Your task to perform on an android device: turn pop-ups off in chrome Image 0: 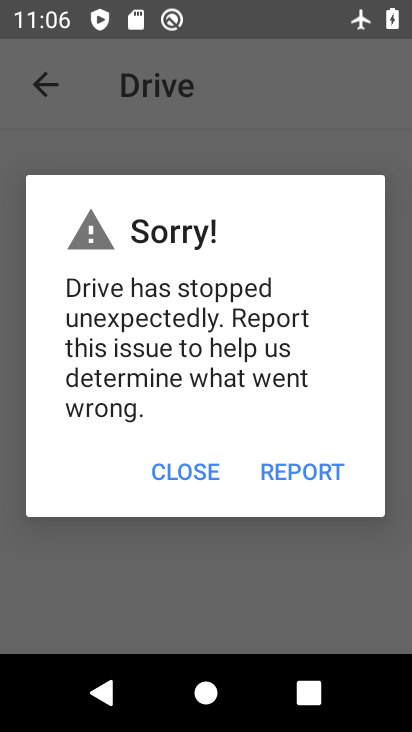
Step 0: press home button
Your task to perform on an android device: turn pop-ups off in chrome Image 1: 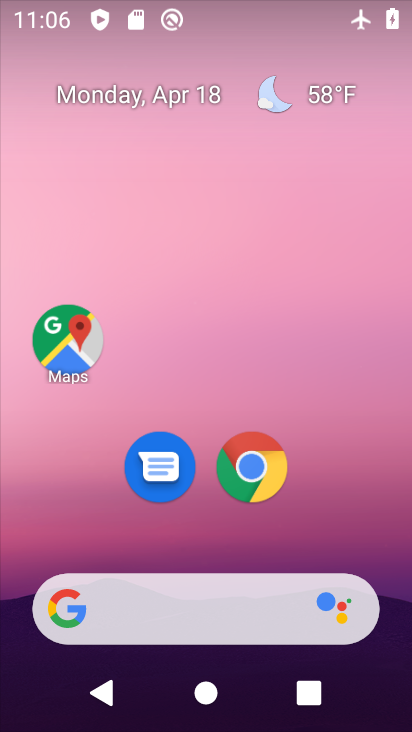
Step 1: click (260, 456)
Your task to perform on an android device: turn pop-ups off in chrome Image 2: 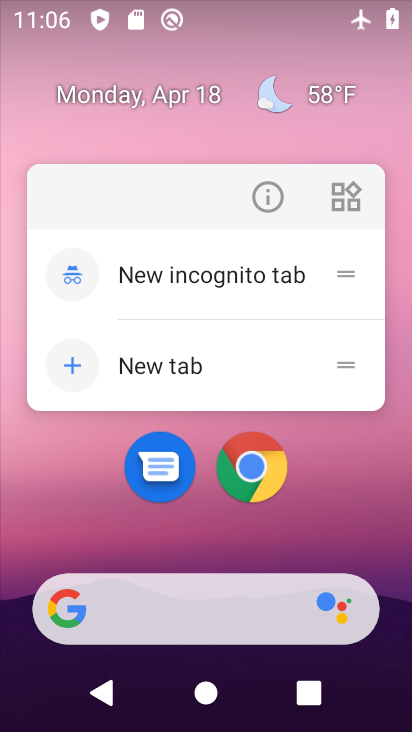
Step 2: click (262, 465)
Your task to perform on an android device: turn pop-ups off in chrome Image 3: 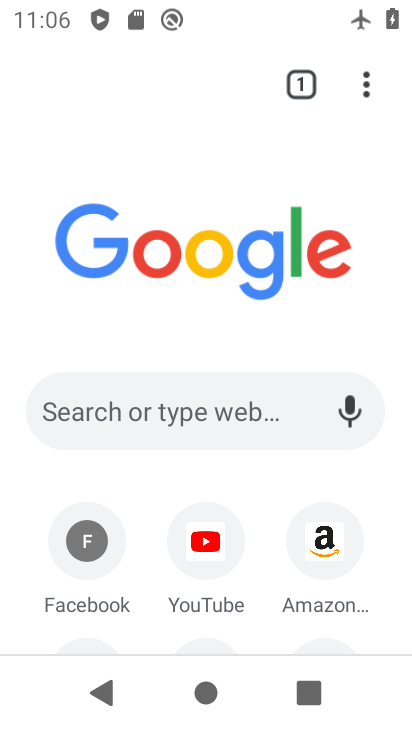
Step 3: click (360, 81)
Your task to perform on an android device: turn pop-ups off in chrome Image 4: 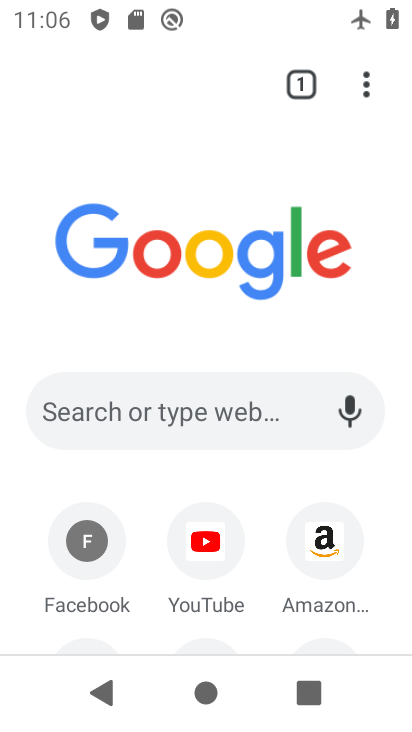
Step 4: click (357, 85)
Your task to perform on an android device: turn pop-ups off in chrome Image 5: 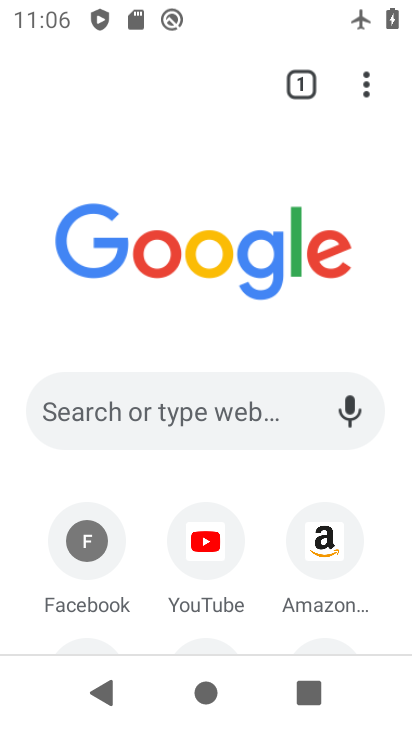
Step 5: click (357, 85)
Your task to perform on an android device: turn pop-ups off in chrome Image 6: 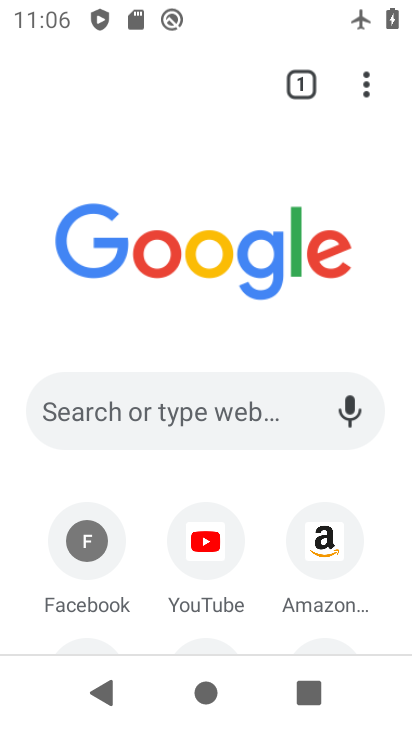
Step 6: click (369, 80)
Your task to perform on an android device: turn pop-ups off in chrome Image 7: 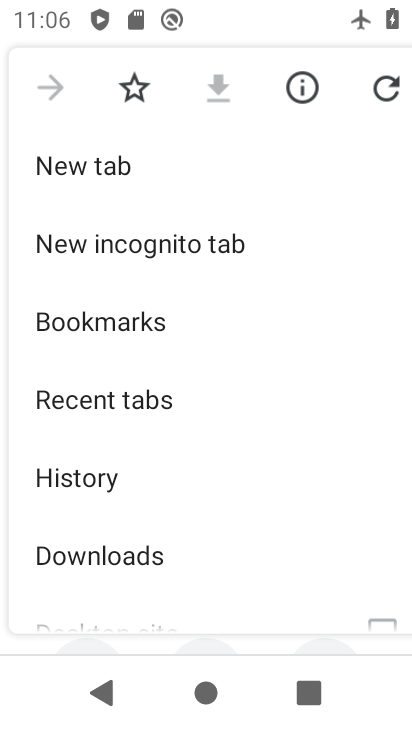
Step 7: drag from (229, 478) to (229, 107)
Your task to perform on an android device: turn pop-ups off in chrome Image 8: 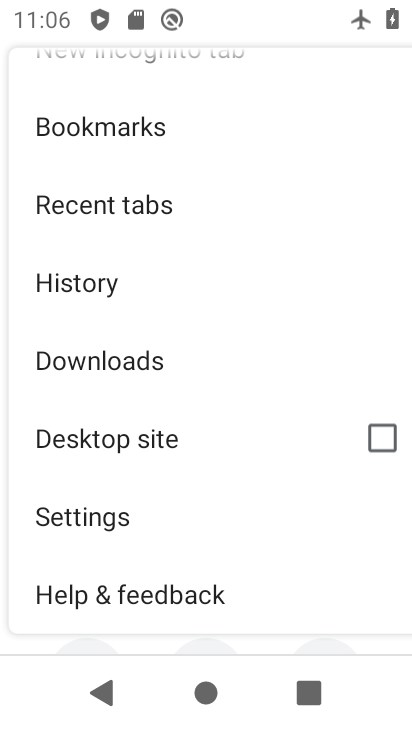
Step 8: click (198, 520)
Your task to perform on an android device: turn pop-ups off in chrome Image 9: 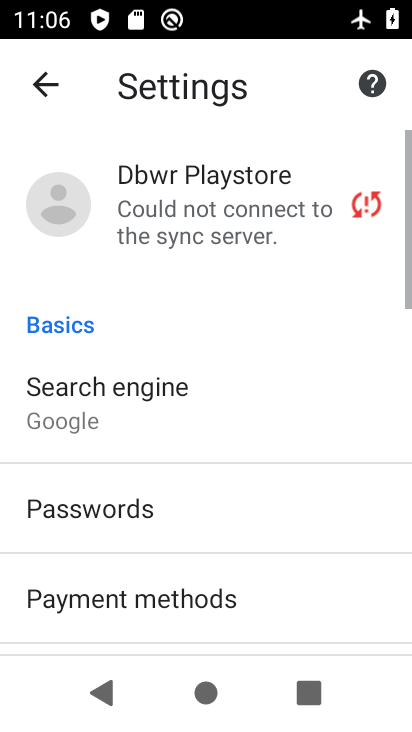
Step 9: drag from (202, 407) to (167, 102)
Your task to perform on an android device: turn pop-ups off in chrome Image 10: 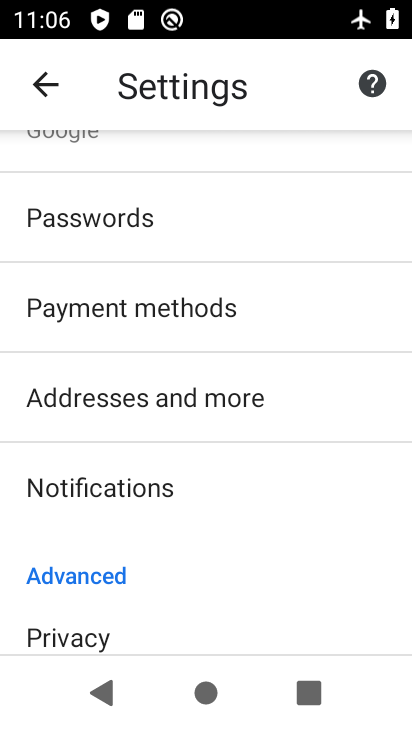
Step 10: drag from (207, 503) to (208, 257)
Your task to perform on an android device: turn pop-ups off in chrome Image 11: 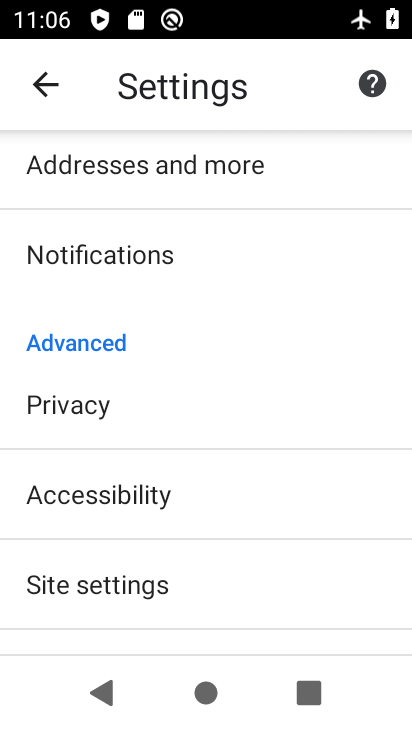
Step 11: click (165, 584)
Your task to perform on an android device: turn pop-ups off in chrome Image 12: 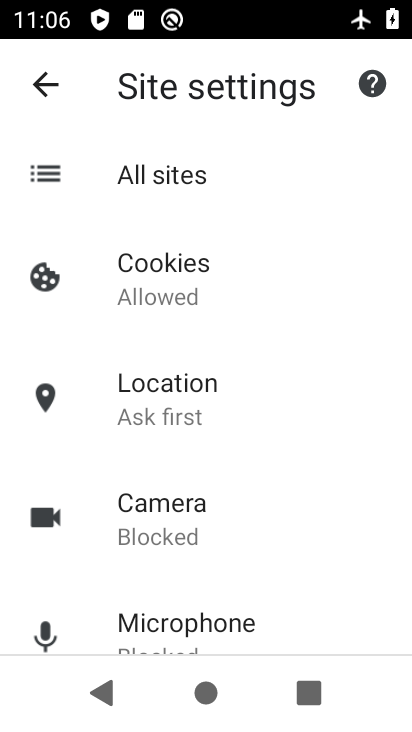
Step 12: drag from (191, 573) to (176, 157)
Your task to perform on an android device: turn pop-ups off in chrome Image 13: 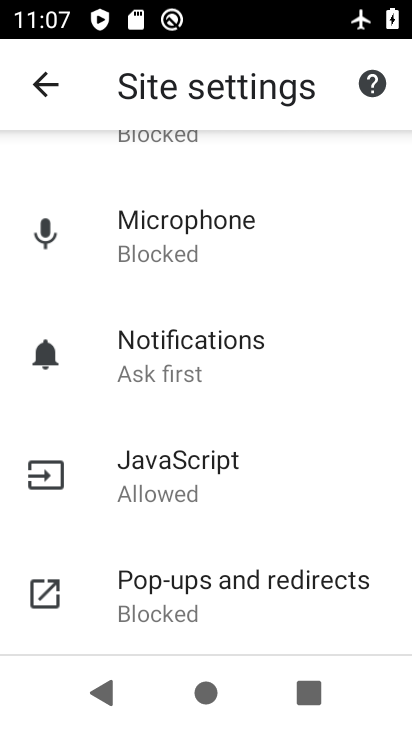
Step 13: click (211, 577)
Your task to perform on an android device: turn pop-ups off in chrome Image 14: 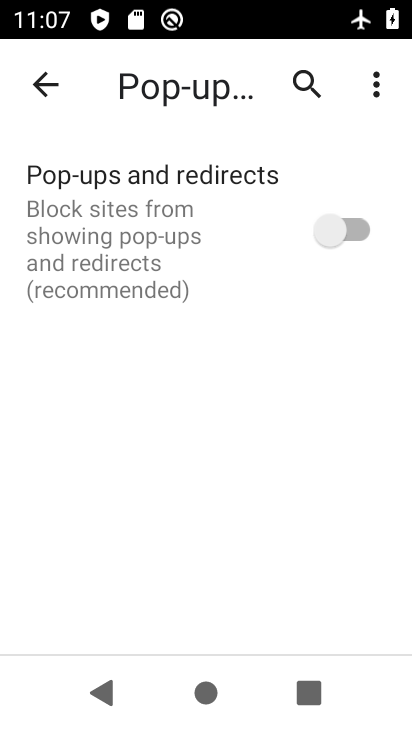
Step 14: task complete